Your task to perform on an android device: Open Maps and search for coffee Image 0: 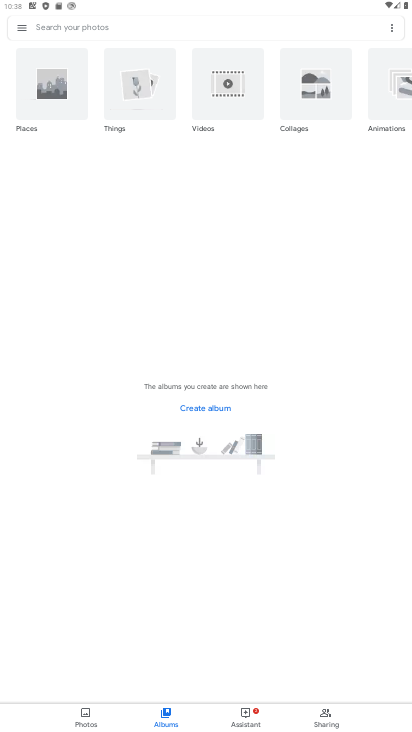
Step 0: press home button
Your task to perform on an android device: Open Maps and search for coffee Image 1: 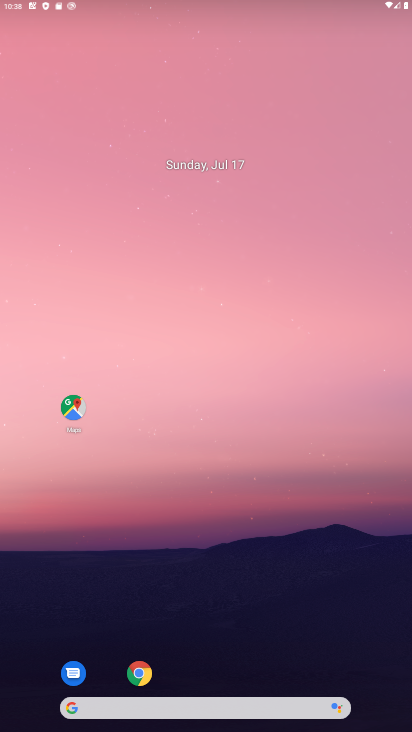
Step 1: drag from (219, 681) to (241, 98)
Your task to perform on an android device: Open Maps and search for coffee Image 2: 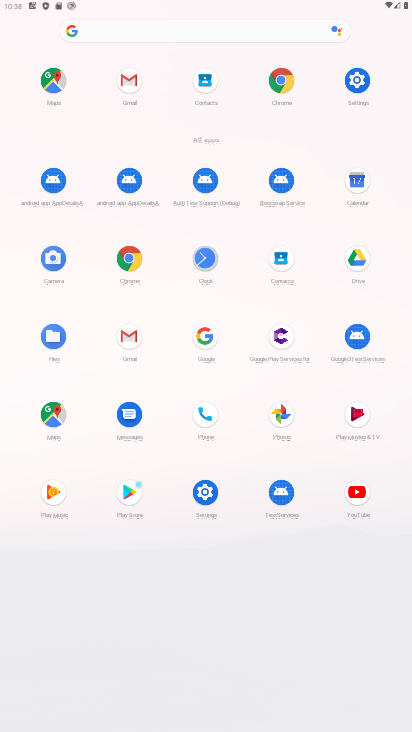
Step 2: click (56, 418)
Your task to perform on an android device: Open Maps and search for coffee Image 3: 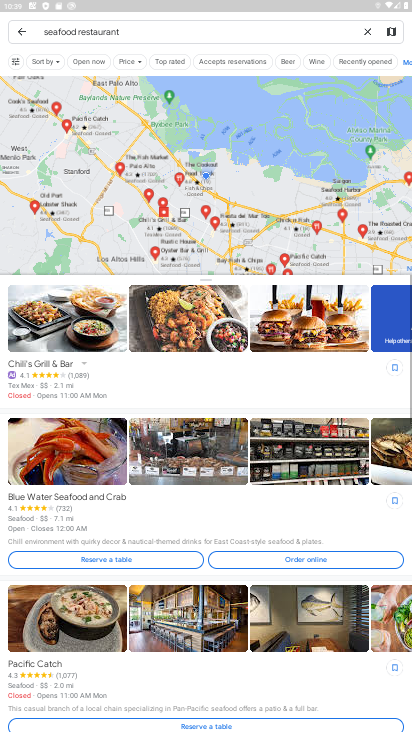
Step 3: click (368, 30)
Your task to perform on an android device: Open Maps and search for coffee Image 4: 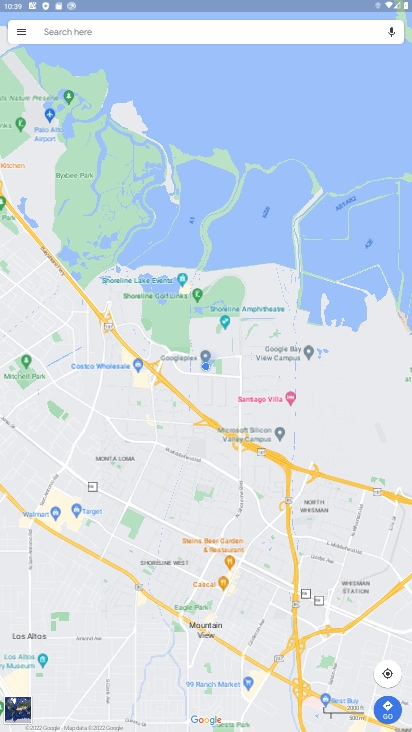
Step 4: click (207, 30)
Your task to perform on an android device: Open Maps and search for coffee Image 5: 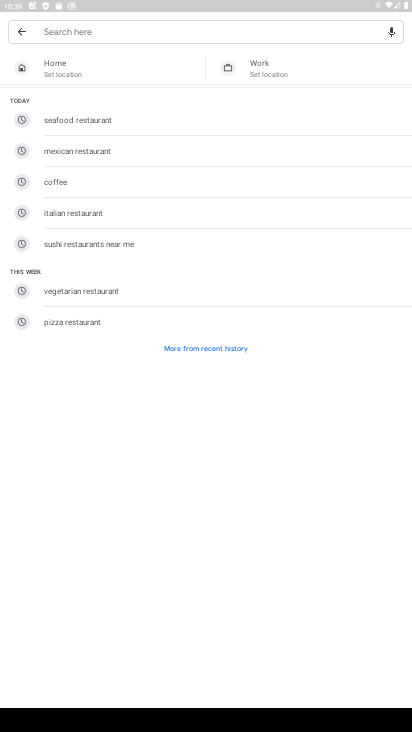
Step 5: click (67, 184)
Your task to perform on an android device: Open Maps and search for coffee Image 6: 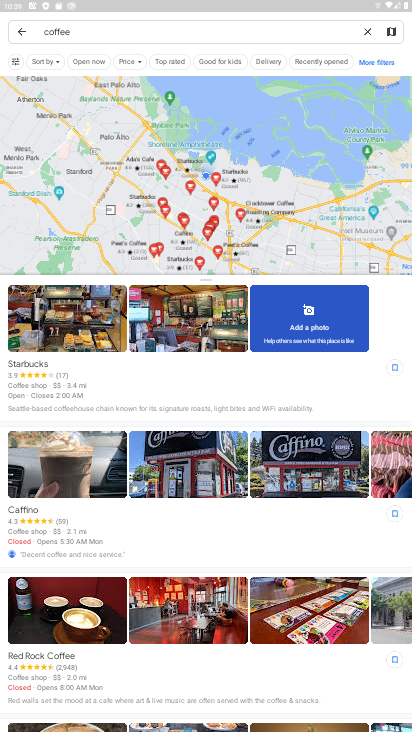
Step 6: task complete